Your task to perform on an android device: allow cookies in the chrome app Image 0: 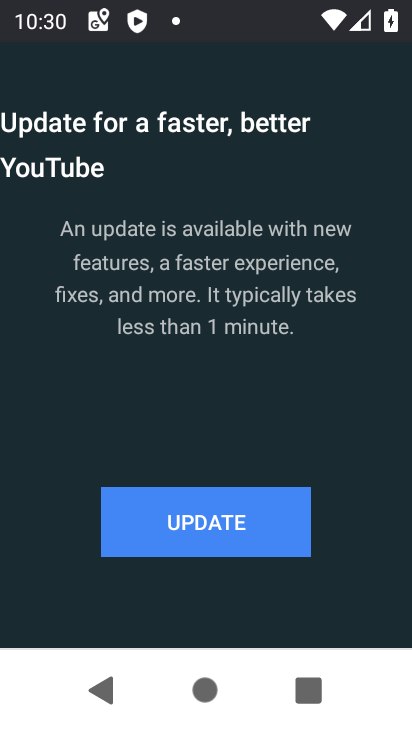
Step 0: press home button
Your task to perform on an android device: allow cookies in the chrome app Image 1: 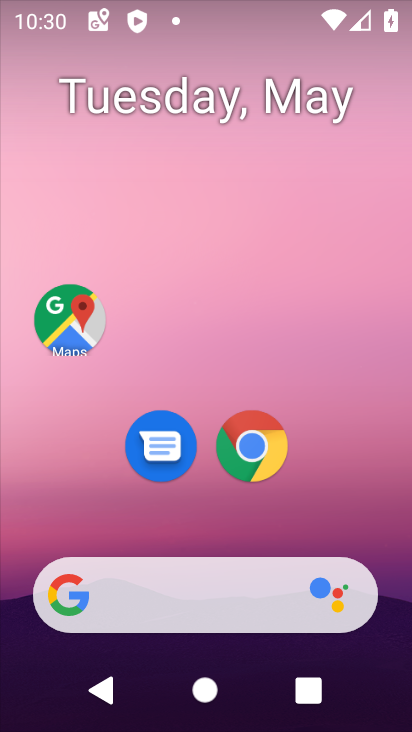
Step 1: click (355, 449)
Your task to perform on an android device: allow cookies in the chrome app Image 2: 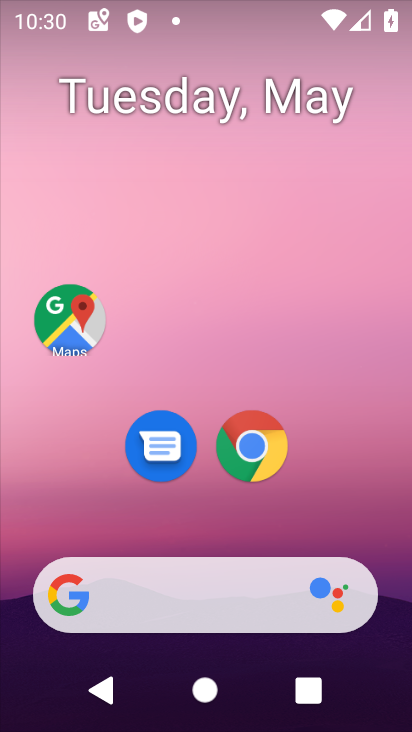
Step 2: click (264, 473)
Your task to perform on an android device: allow cookies in the chrome app Image 3: 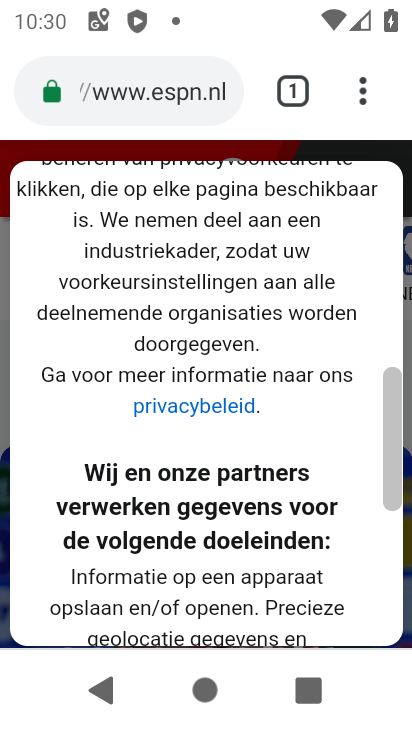
Step 3: click (362, 107)
Your task to perform on an android device: allow cookies in the chrome app Image 4: 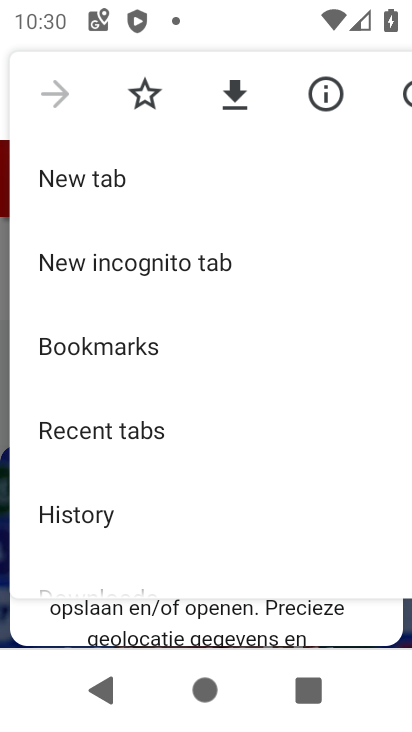
Step 4: drag from (148, 537) to (215, 146)
Your task to perform on an android device: allow cookies in the chrome app Image 5: 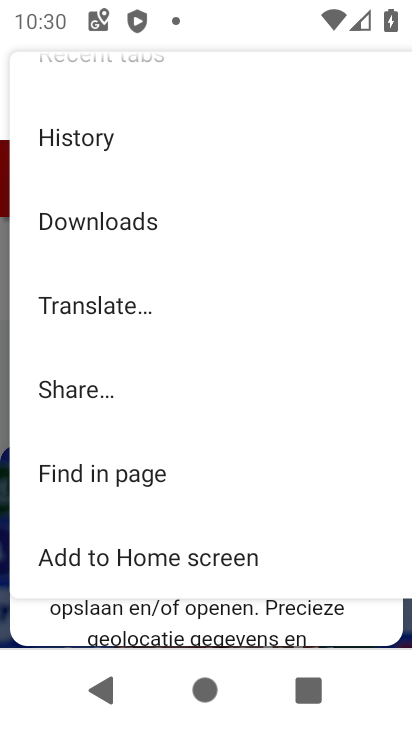
Step 5: drag from (178, 474) to (215, 72)
Your task to perform on an android device: allow cookies in the chrome app Image 6: 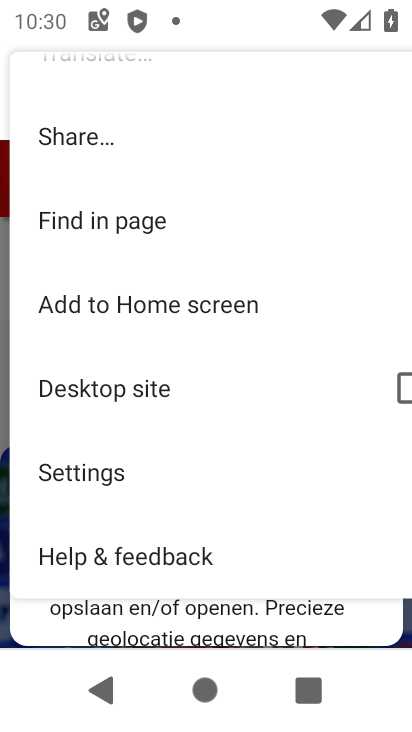
Step 6: click (116, 482)
Your task to perform on an android device: allow cookies in the chrome app Image 7: 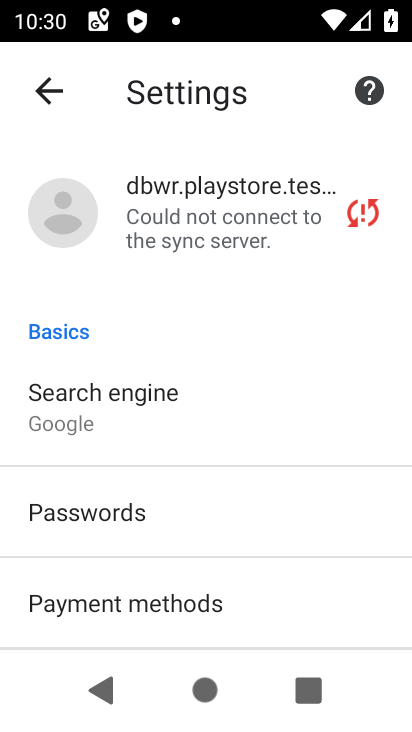
Step 7: drag from (160, 592) to (213, 114)
Your task to perform on an android device: allow cookies in the chrome app Image 8: 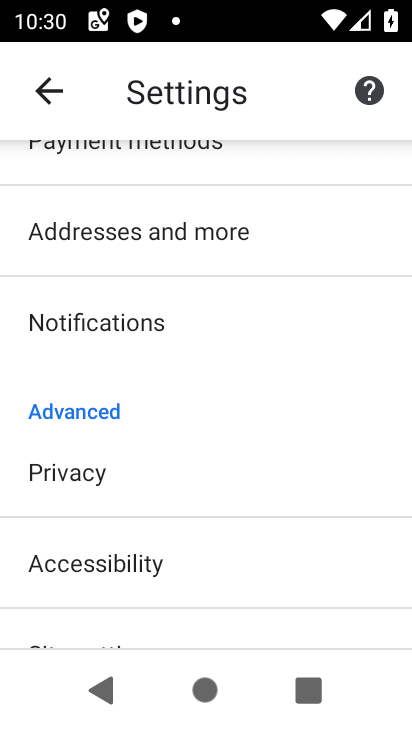
Step 8: drag from (148, 506) to (188, 150)
Your task to perform on an android device: allow cookies in the chrome app Image 9: 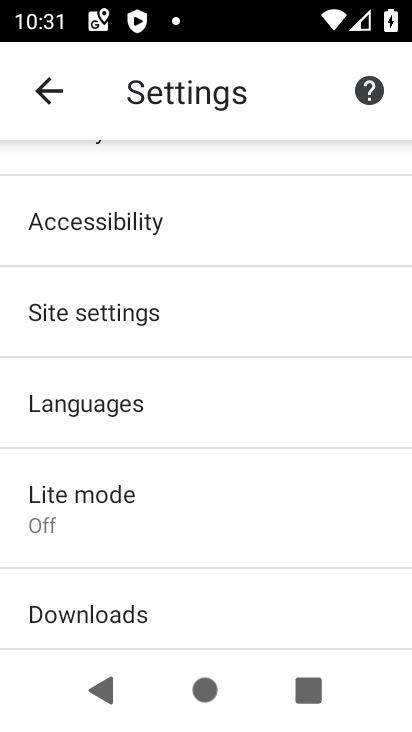
Step 9: click (101, 313)
Your task to perform on an android device: allow cookies in the chrome app Image 10: 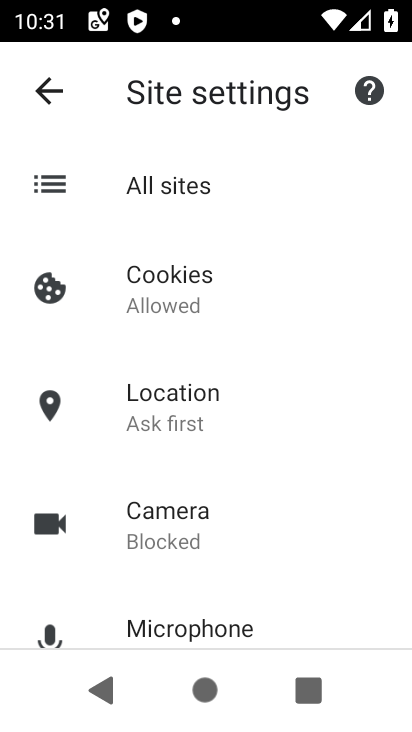
Step 10: click (157, 315)
Your task to perform on an android device: allow cookies in the chrome app Image 11: 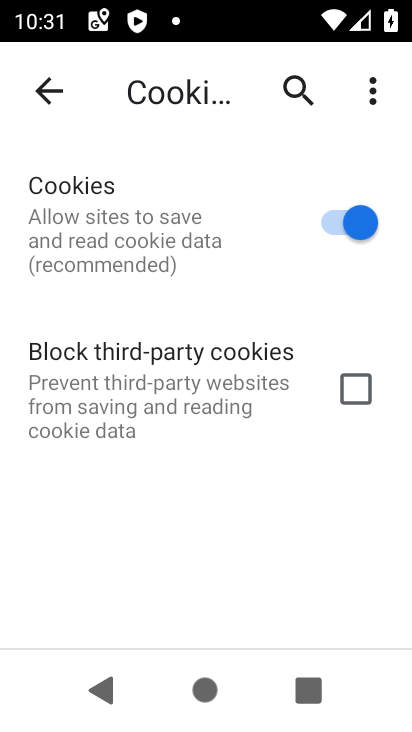
Step 11: task complete